Your task to perform on an android device: Show me popular games on the Play Store Image 0: 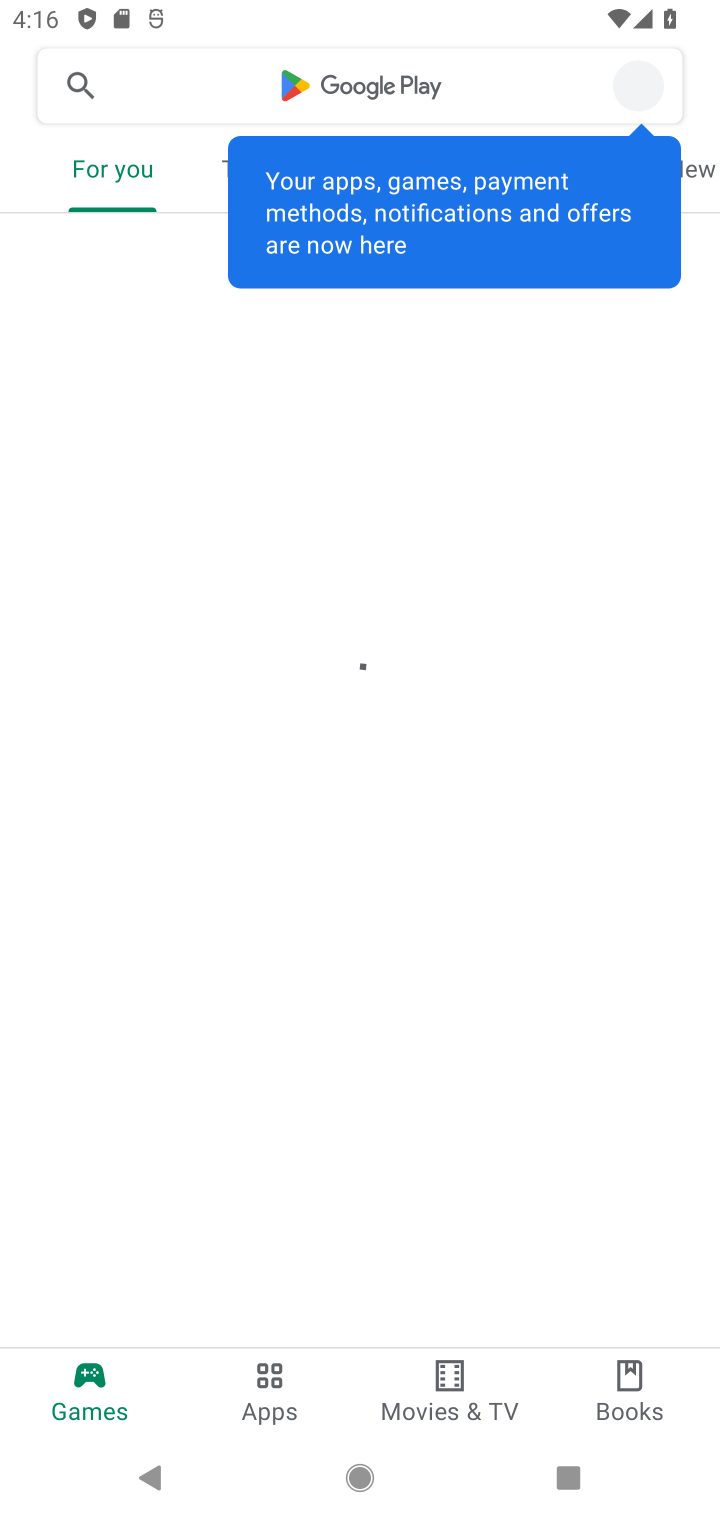
Step 0: press back button
Your task to perform on an android device: Show me popular games on the Play Store Image 1: 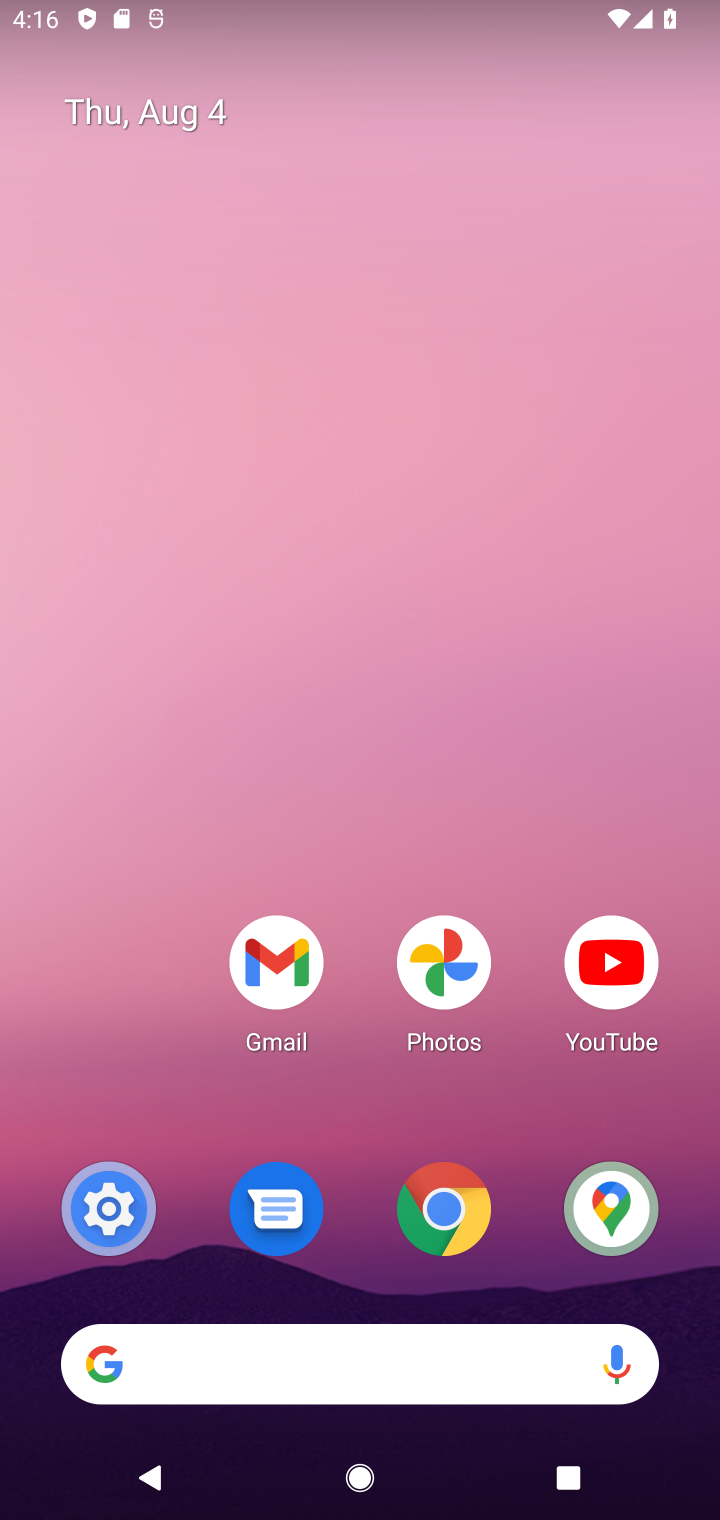
Step 1: drag from (368, 1272) to (377, 54)
Your task to perform on an android device: Show me popular games on the Play Store Image 2: 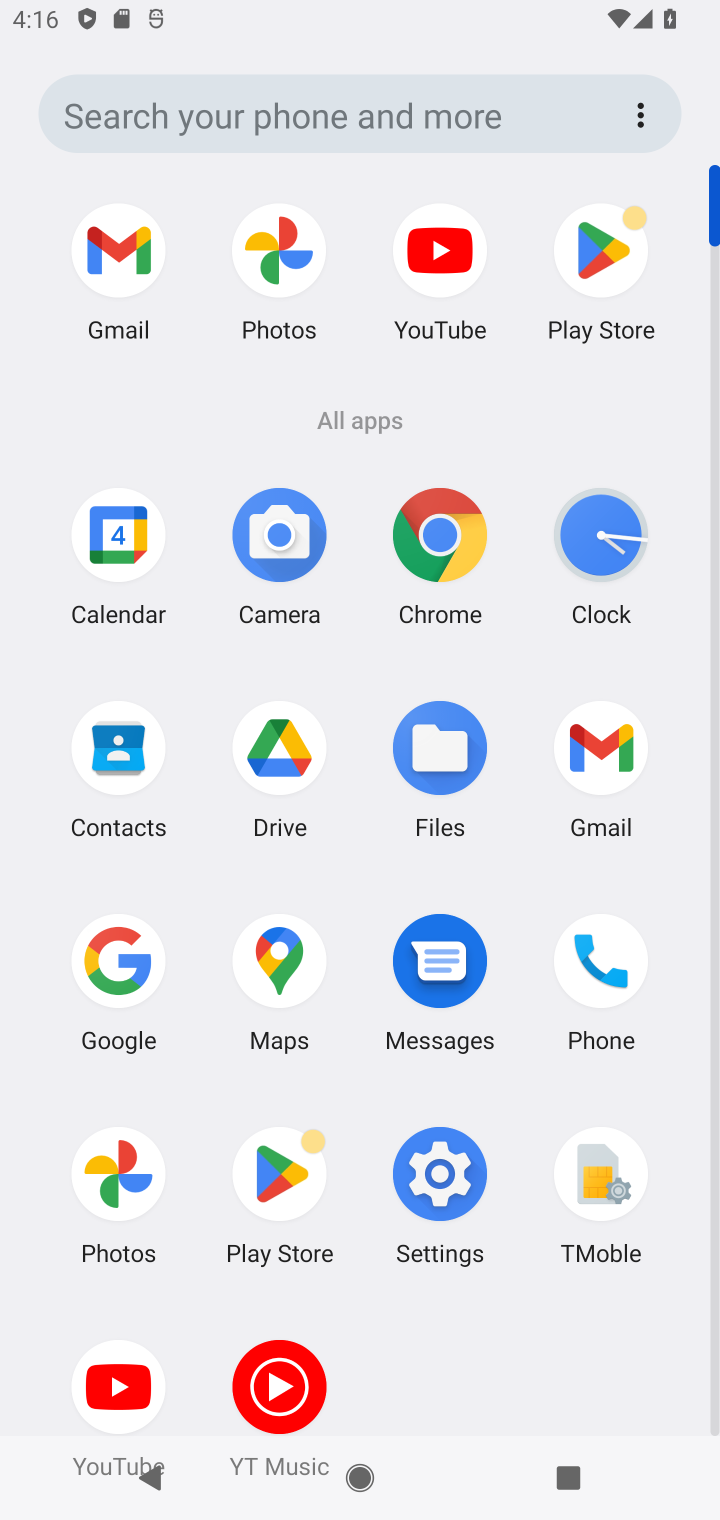
Step 2: click (275, 1193)
Your task to perform on an android device: Show me popular games on the Play Store Image 3: 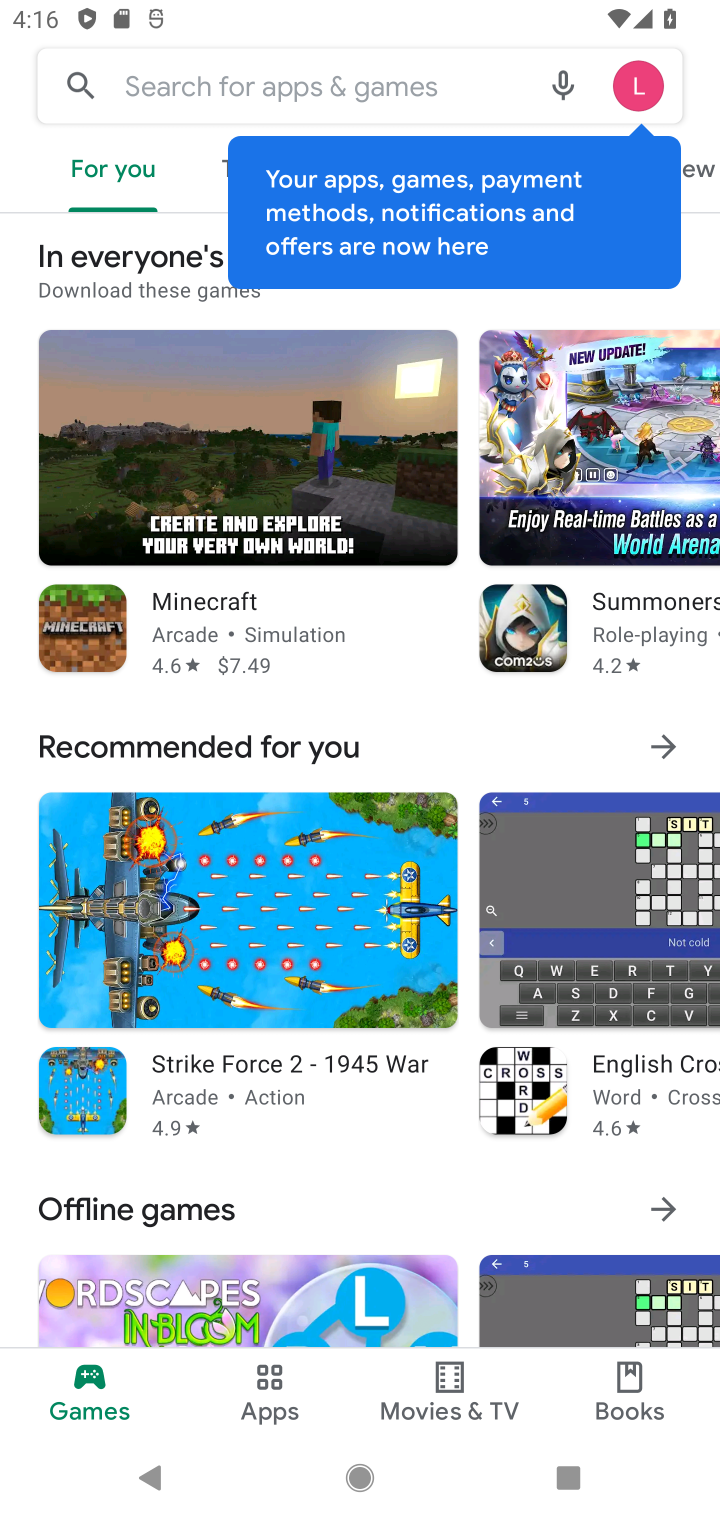
Step 3: task complete